Your task to perform on an android device: Open Yahoo.com Image 0: 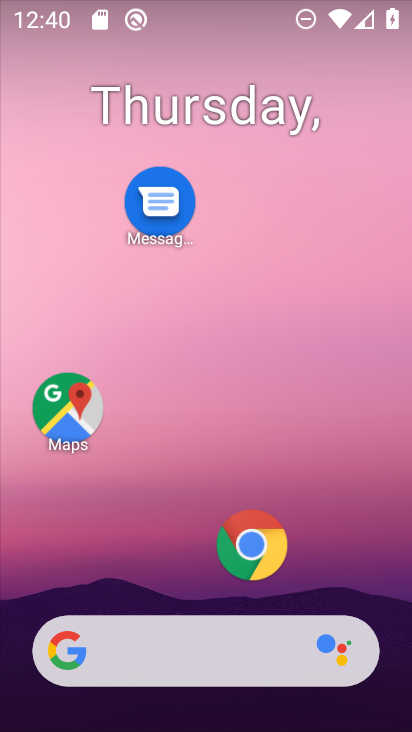
Step 0: click (249, 549)
Your task to perform on an android device: Open Yahoo.com Image 1: 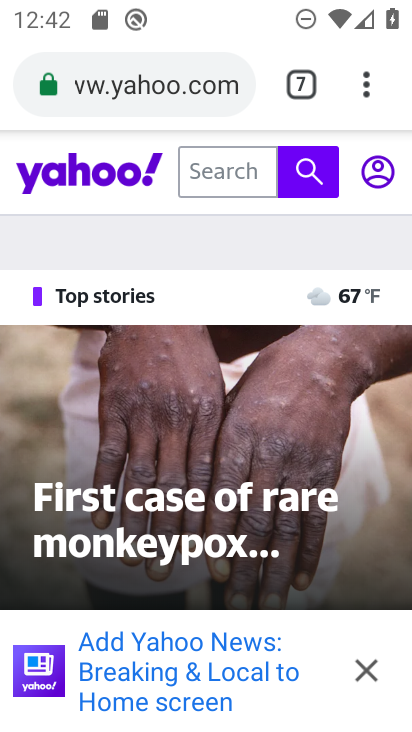
Step 1: task complete